Your task to perform on an android device: toggle location history Image 0: 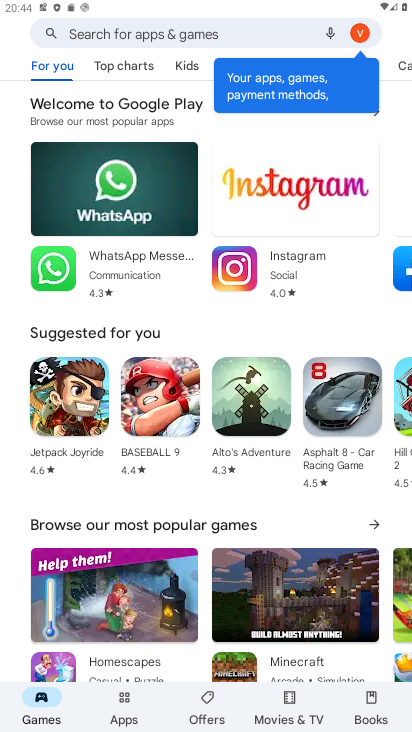
Step 0: press home button
Your task to perform on an android device: toggle location history Image 1: 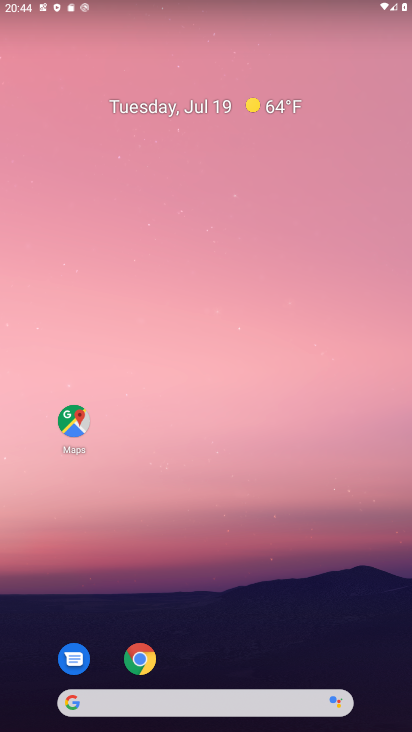
Step 1: drag from (209, 660) to (364, 8)
Your task to perform on an android device: toggle location history Image 2: 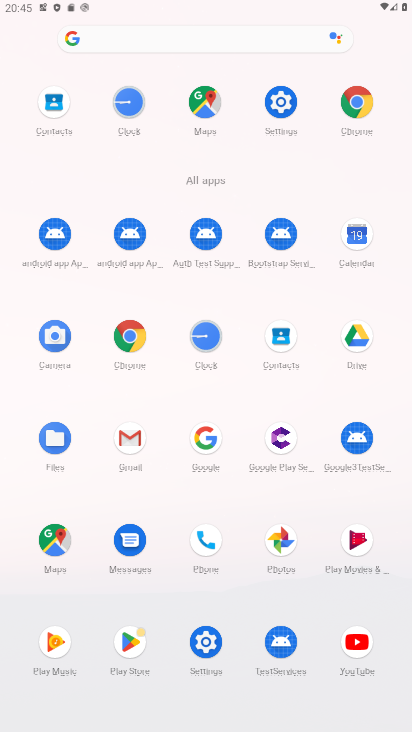
Step 2: click (289, 112)
Your task to perform on an android device: toggle location history Image 3: 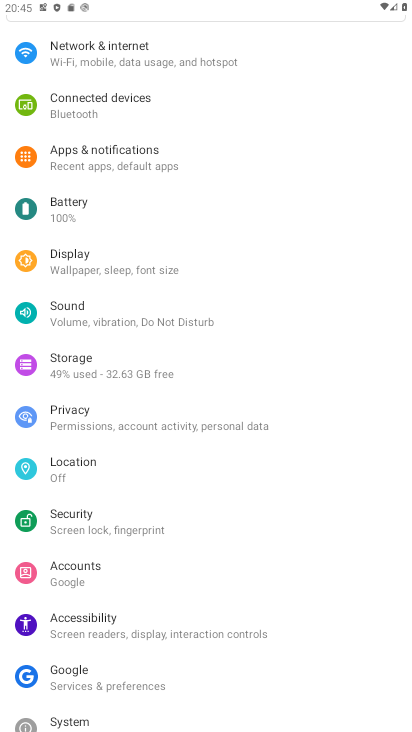
Step 3: click (101, 479)
Your task to perform on an android device: toggle location history Image 4: 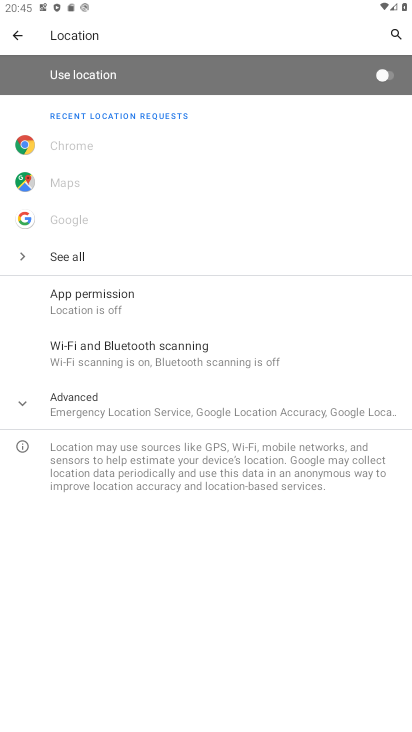
Step 4: click (84, 403)
Your task to perform on an android device: toggle location history Image 5: 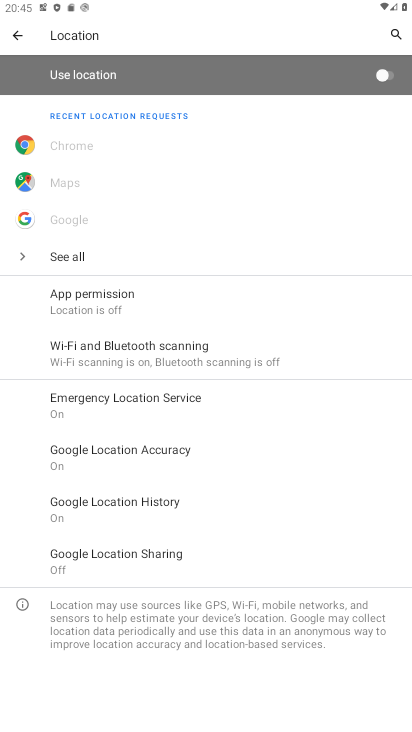
Step 5: click (134, 500)
Your task to perform on an android device: toggle location history Image 6: 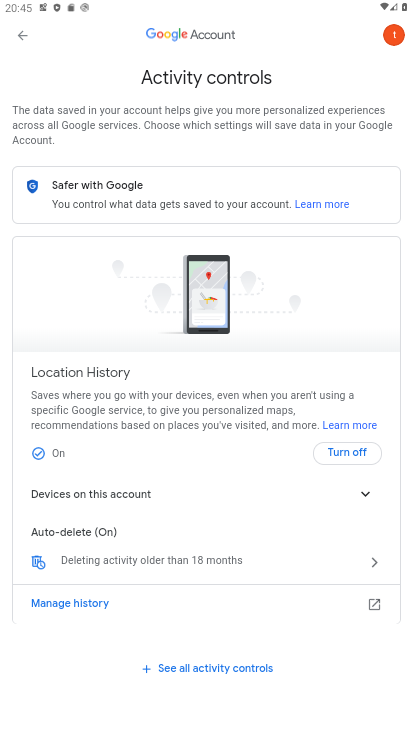
Step 6: click (336, 449)
Your task to perform on an android device: toggle location history Image 7: 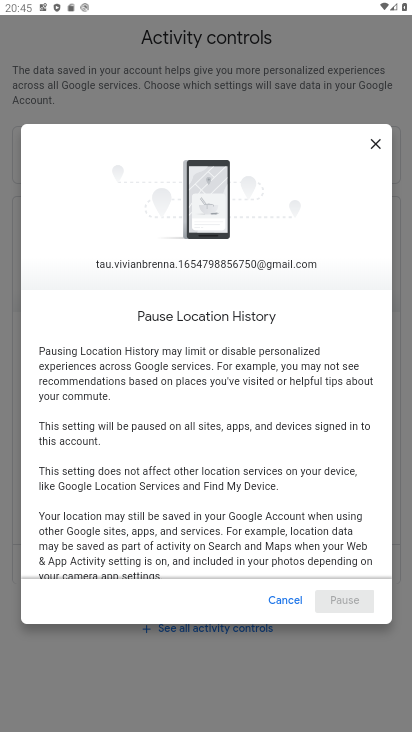
Step 7: drag from (210, 534) to (283, 264)
Your task to perform on an android device: toggle location history Image 8: 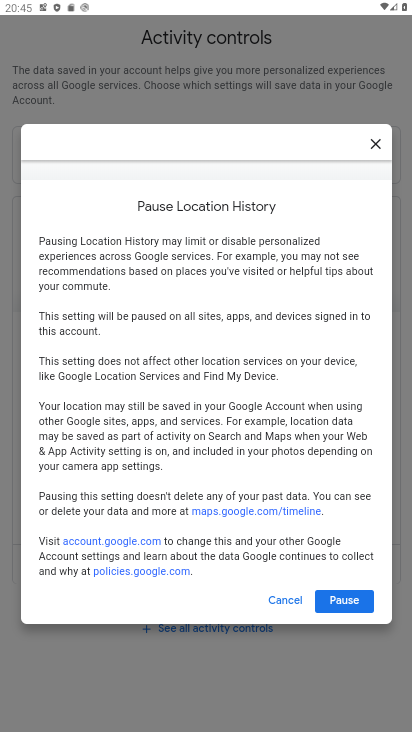
Step 8: click (343, 608)
Your task to perform on an android device: toggle location history Image 9: 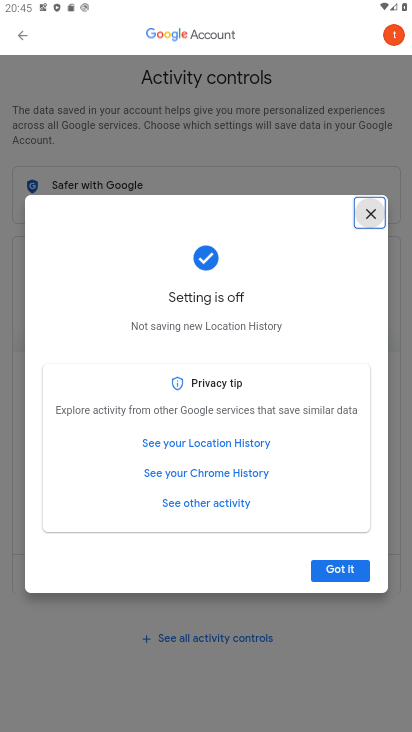
Step 9: click (346, 576)
Your task to perform on an android device: toggle location history Image 10: 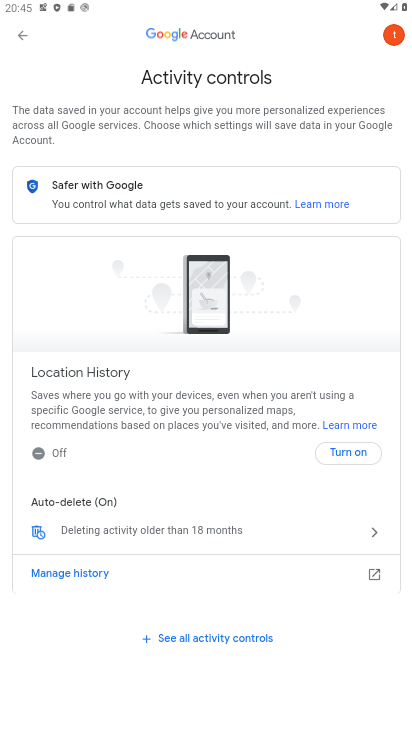
Step 10: task complete